Your task to perform on an android device: Open display settings Image 0: 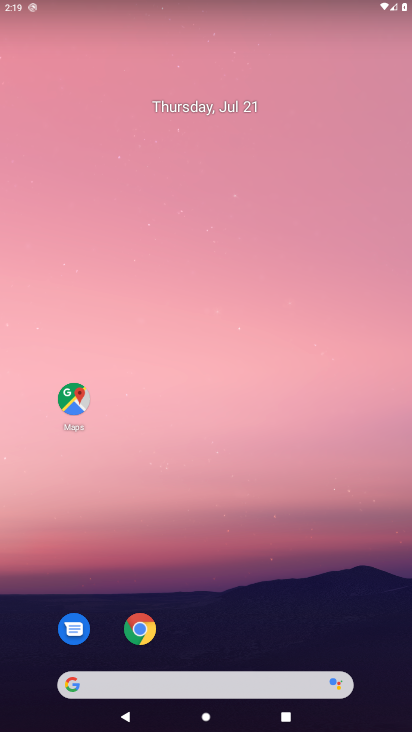
Step 0: drag from (13, 685) to (101, 301)
Your task to perform on an android device: Open display settings Image 1: 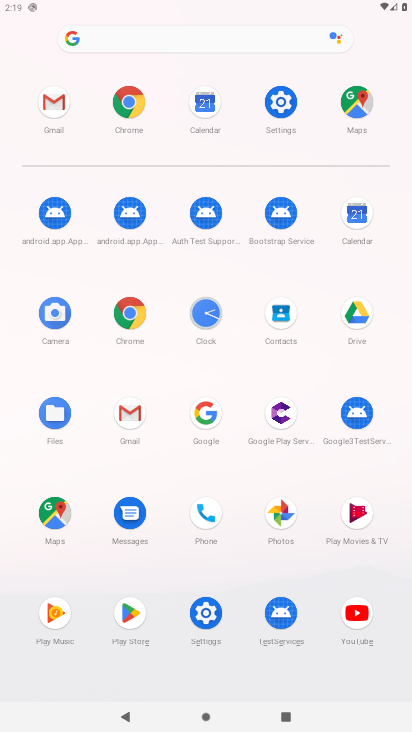
Step 1: click (210, 615)
Your task to perform on an android device: Open display settings Image 2: 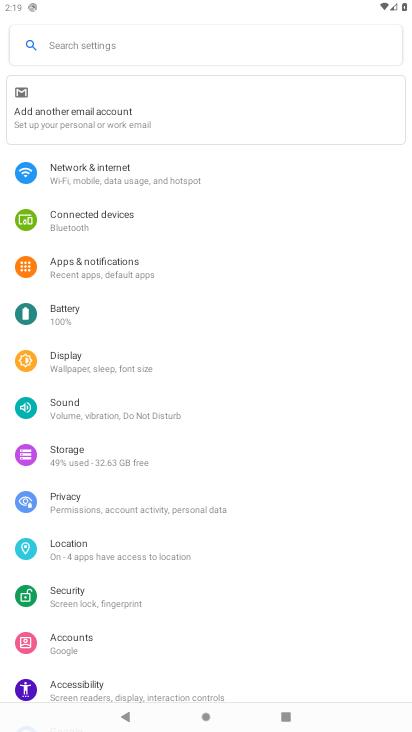
Step 2: click (74, 373)
Your task to perform on an android device: Open display settings Image 3: 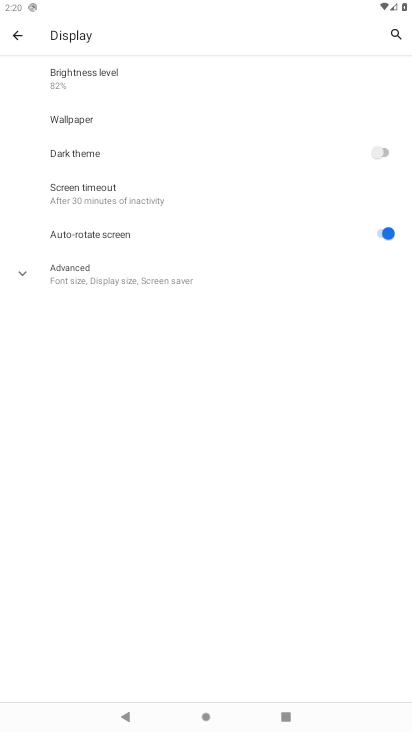
Step 3: task complete